Your task to perform on an android device: delete browsing data in the chrome app Image 0: 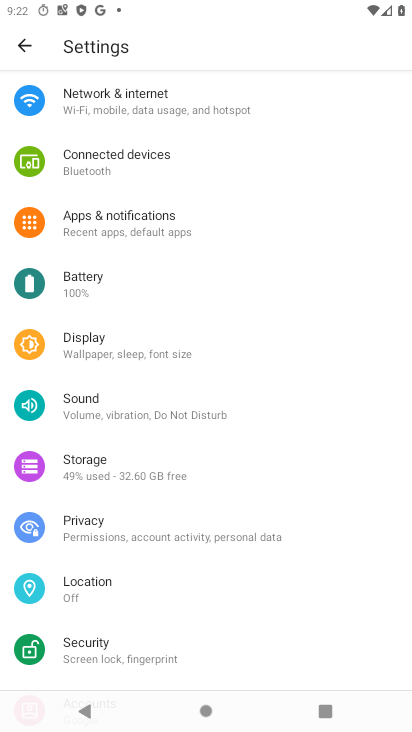
Step 0: press home button
Your task to perform on an android device: delete browsing data in the chrome app Image 1: 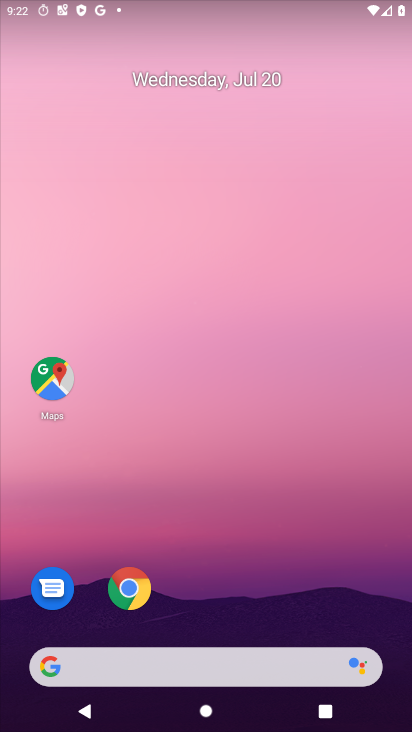
Step 1: drag from (277, 650) to (367, 28)
Your task to perform on an android device: delete browsing data in the chrome app Image 2: 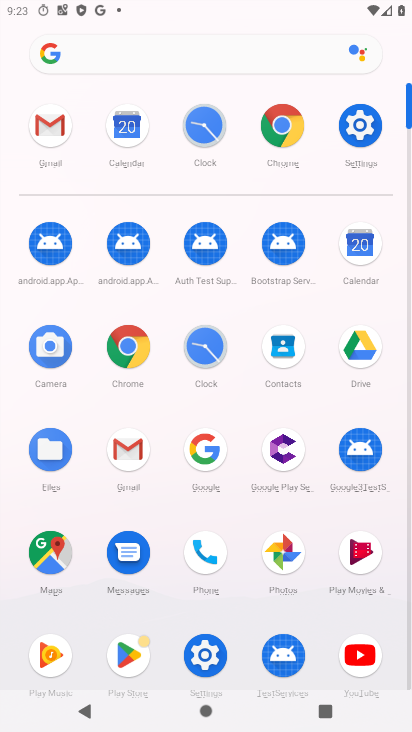
Step 2: click (137, 357)
Your task to perform on an android device: delete browsing data in the chrome app Image 3: 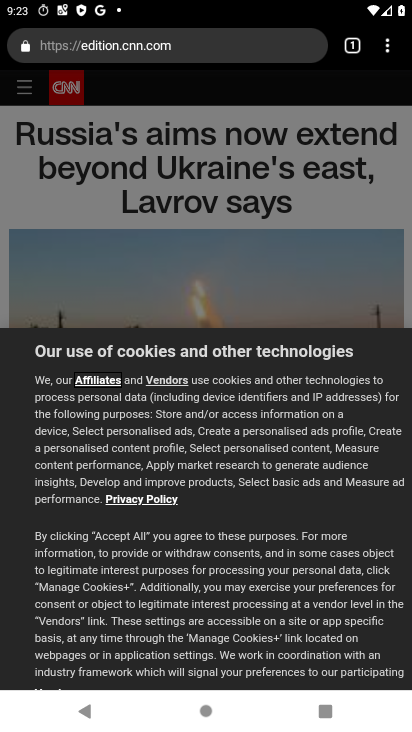
Step 3: drag from (384, 40) to (255, 511)
Your task to perform on an android device: delete browsing data in the chrome app Image 4: 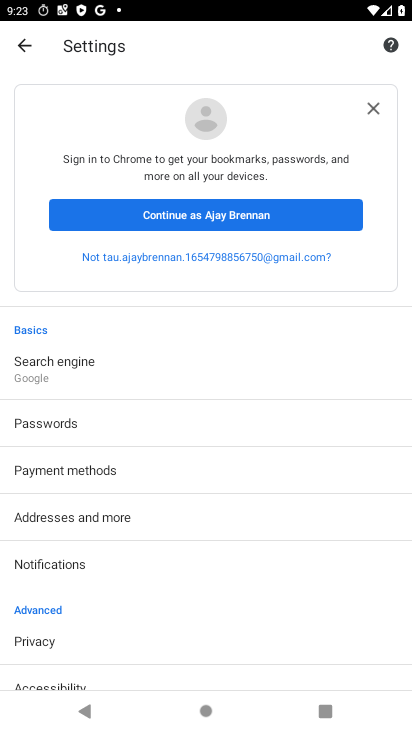
Step 4: click (114, 647)
Your task to perform on an android device: delete browsing data in the chrome app Image 5: 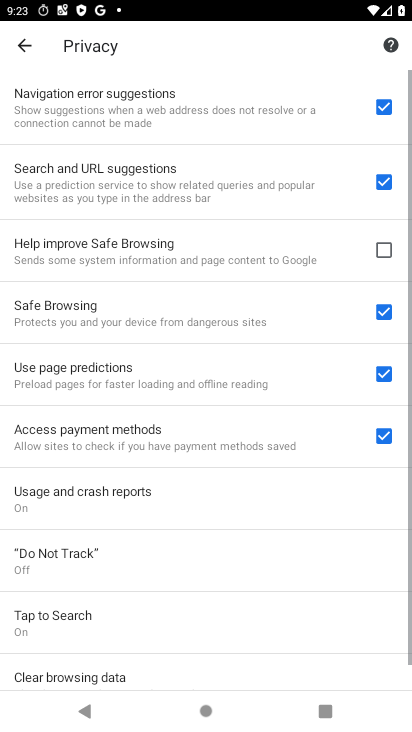
Step 5: drag from (229, 578) to (255, 149)
Your task to perform on an android device: delete browsing data in the chrome app Image 6: 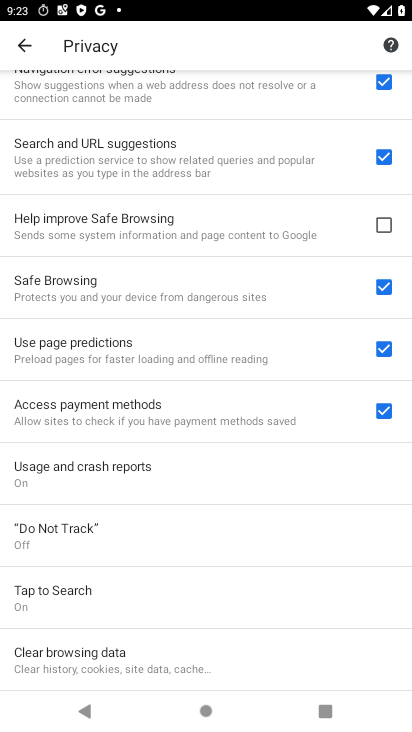
Step 6: click (188, 663)
Your task to perform on an android device: delete browsing data in the chrome app Image 7: 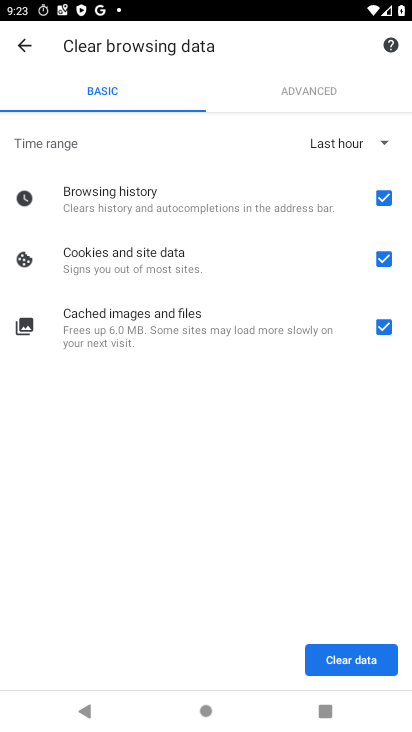
Step 7: click (369, 653)
Your task to perform on an android device: delete browsing data in the chrome app Image 8: 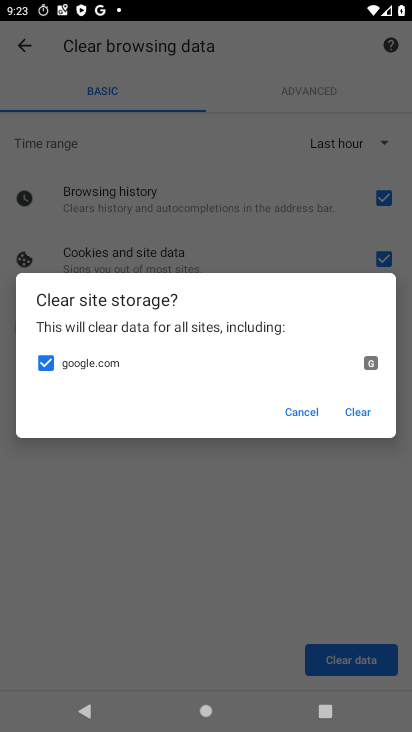
Step 8: click (351, 413)
Your task to perform on an android device: delete browsing data in the chrome app Image 9: 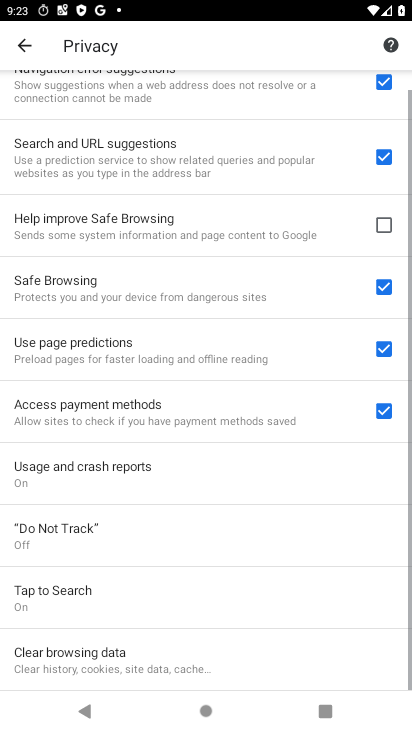
Step 9: task complete